Your task to perform on an android device: Open my contact list Image 0: 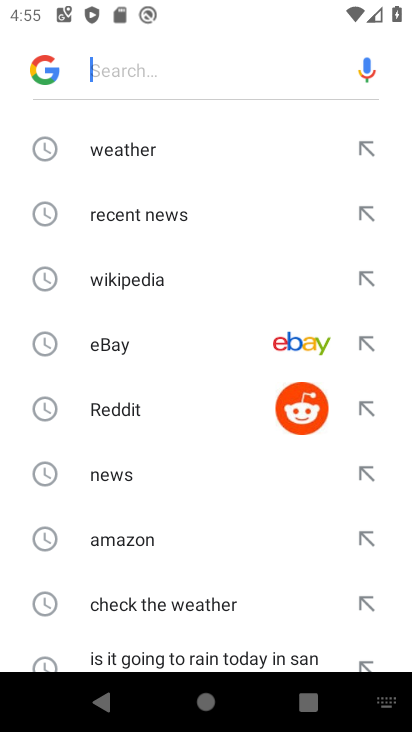
Step 0: press home button
Your task to perform on an android device: Open my contact list Image 1: 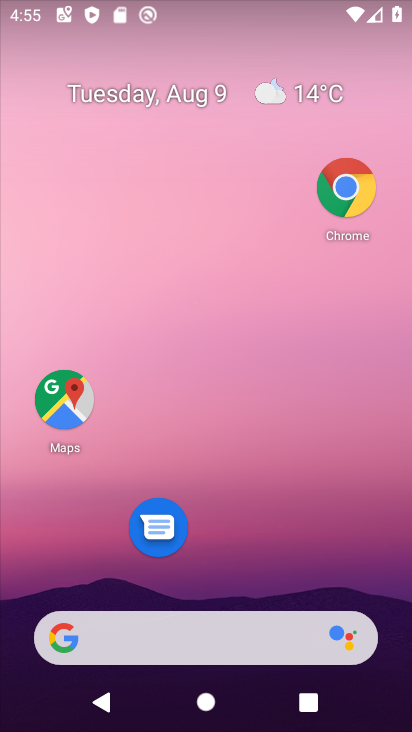
Step 1: drag from (305, 217) to (190, 87)
Your task to perform on an android device: Open my contact list Image 2: 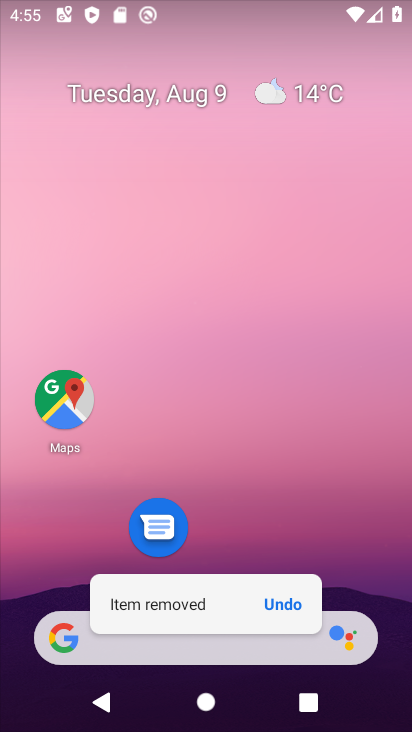
Step 2: click (265, 19)
Your task to perform on an android device: Open my contact list Image 3: 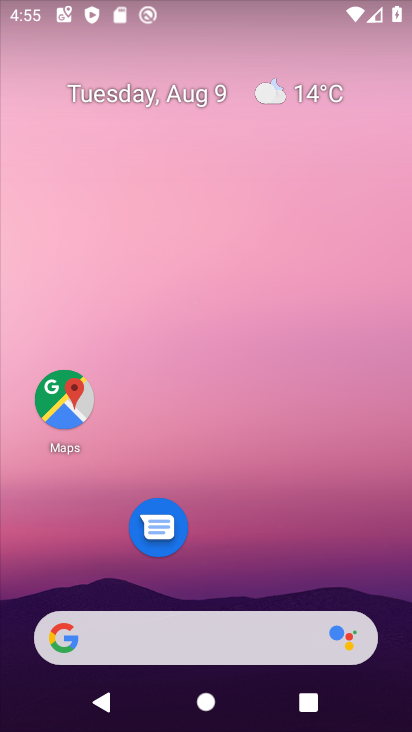
Step 3: click (302, 616)
Your task to perform on an android device: Open my contact list Image 4: 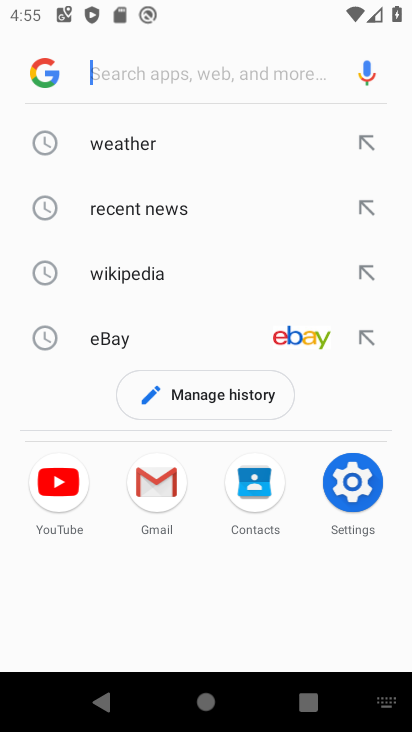
Step 4: drag from (272, 479) to (286, 139)
Your task to perform on an android device: Open my contact list Image 5: 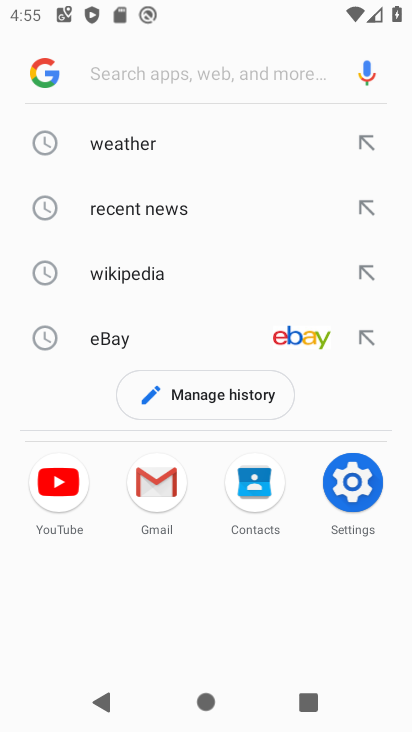
Step 5: click (256, 477)
Your task to perform on an android device: Open my contact list Image 6: 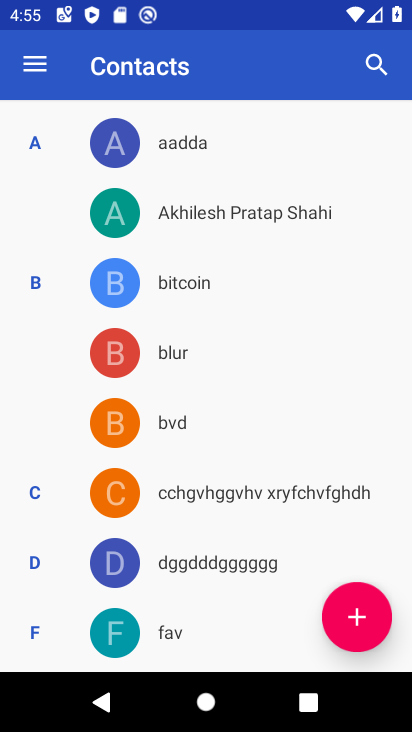
Step 6: task complete